Your task to perform on an android device: When is my next meeting? Image 0: 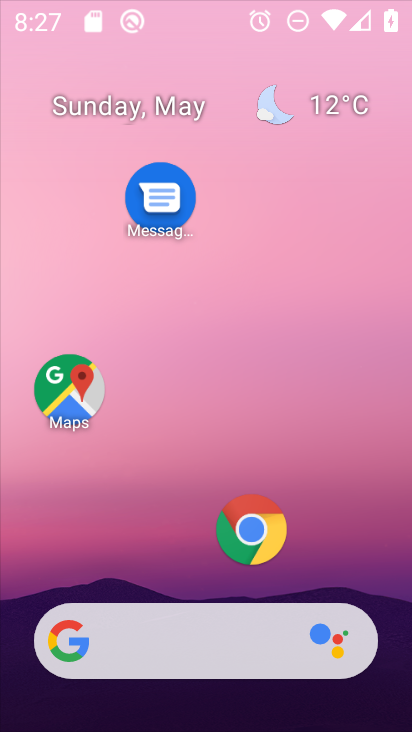
Step 0: click (238, 96)
Your task to perform on an android device: When is my next meeting? Image 1: 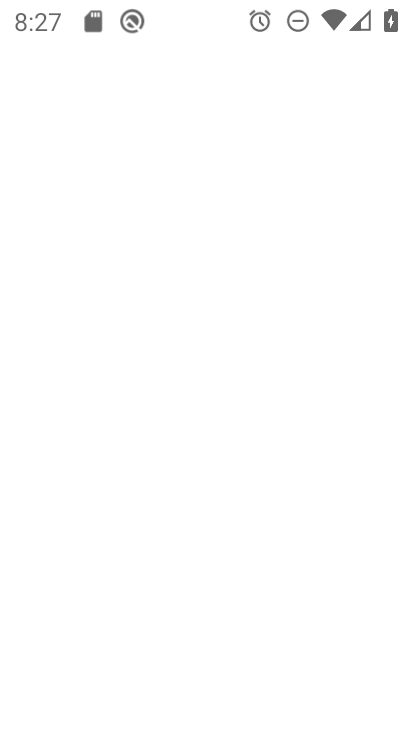
Step 1: press home button
Your task to perform on an android device: When is my next meeting? Image 2: 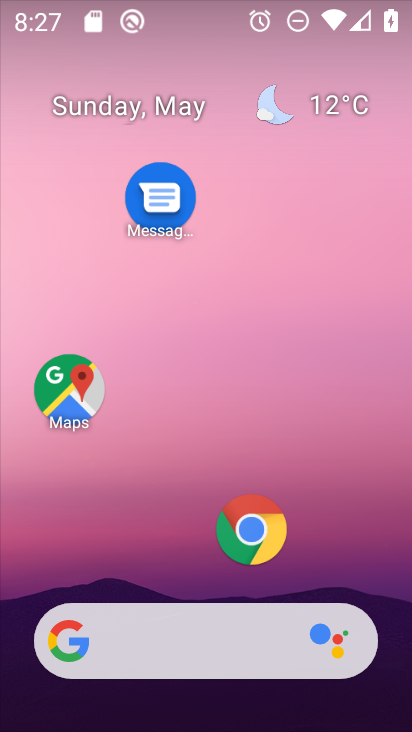
Step 2: drag from (197, 575) to (253, 63)
Your task to perform on an android device: When is my next meeting? Image 3: 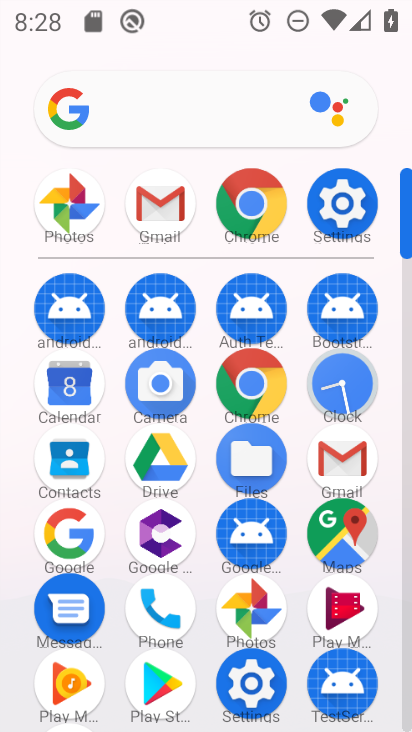
Step 3: click (68, 389)
Your task to perform on an android device: When is my next meeting? Image 4: 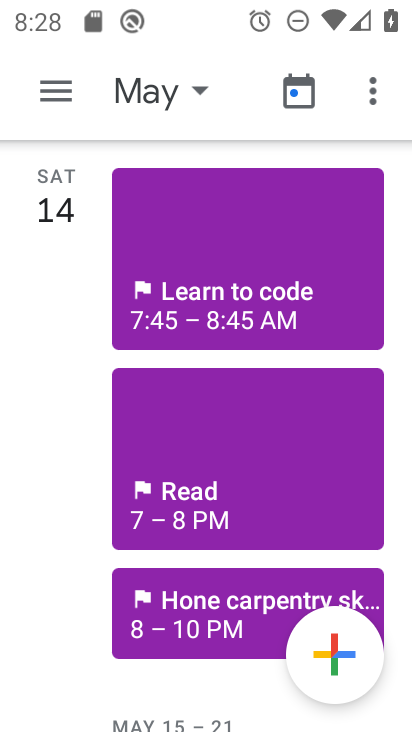
Step 4: click (62, 193)
Your task to perform on an android device: When is my next meeting? Image 5: 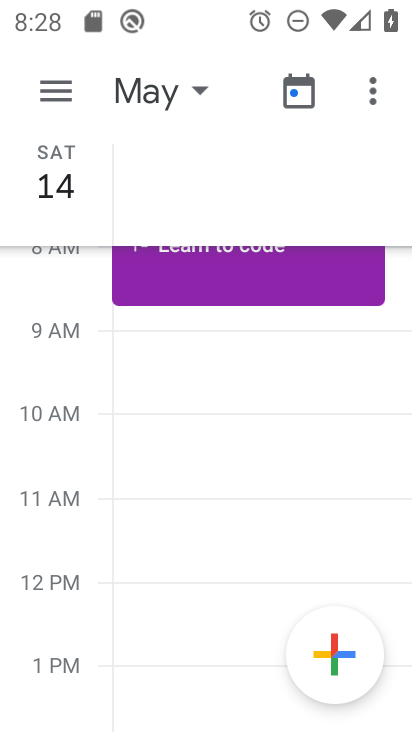
Step 5: click (68, 181)
Your task to perform on an android device: When is my next meeting? Image 6: 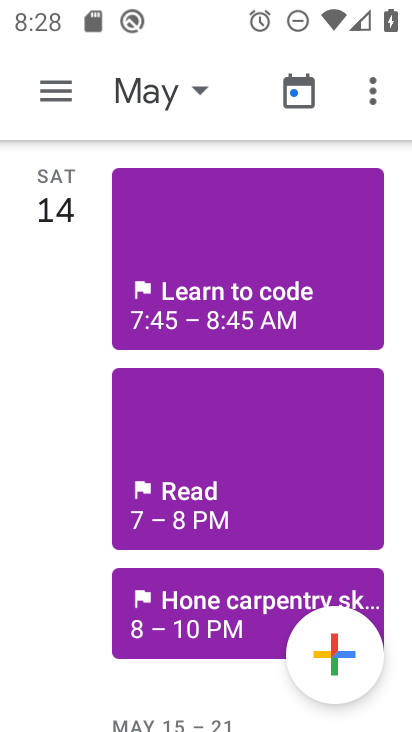
Step 6: click (188, 91)
Your task to perform on an android device: When is my next meeting? Image 7: 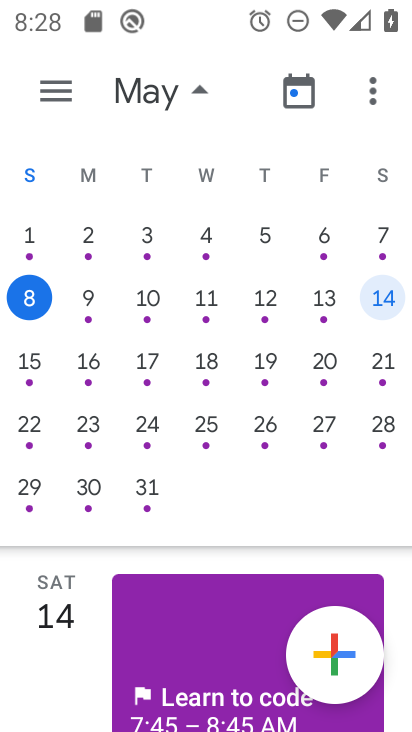
Step 7: click (33, 306)
Your task to perform on an android device: When is my next meeting? Image 8: 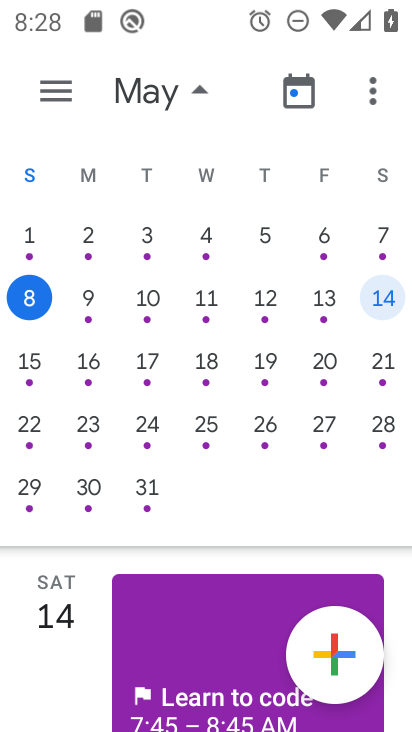
Step 8: click (24, 303)
Your task to perform on an android device: When is my next meeting? Image 9: 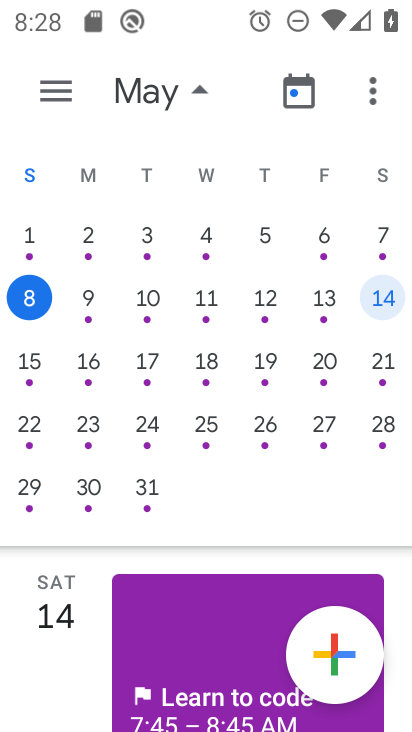
Step 9: click (33, 303)
Your task to perform on an android device: When is my next meeting? Image 10: 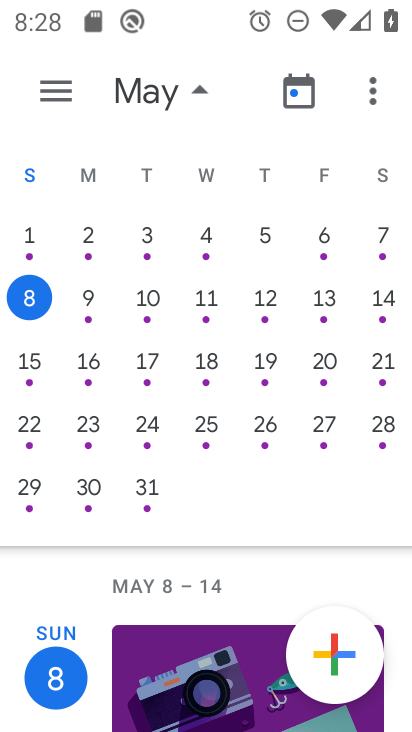
Step 10: click (64, 82)
Your task to perform on an android device: When is my next meeting? Image 11: 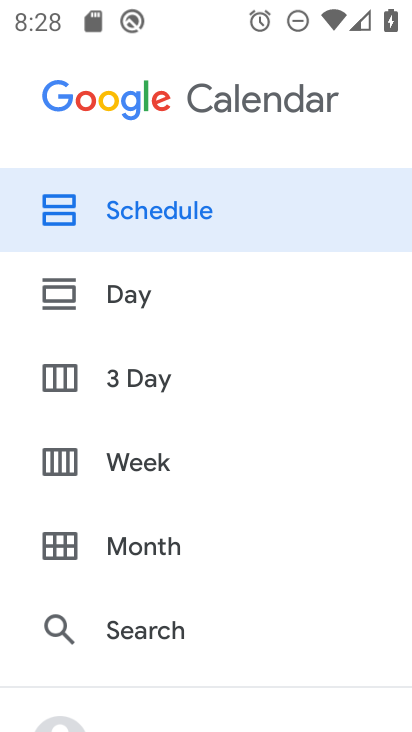
Step 11: click (100, 294)
Your task to perform on an android device: When is my next meeting? Image 12: 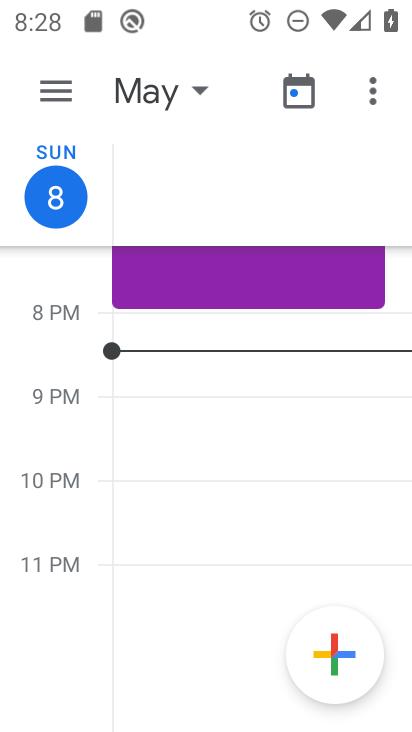
Step 12: click (96, 226)
Your task to perform on an android device: When is my next meeting? Image 13: 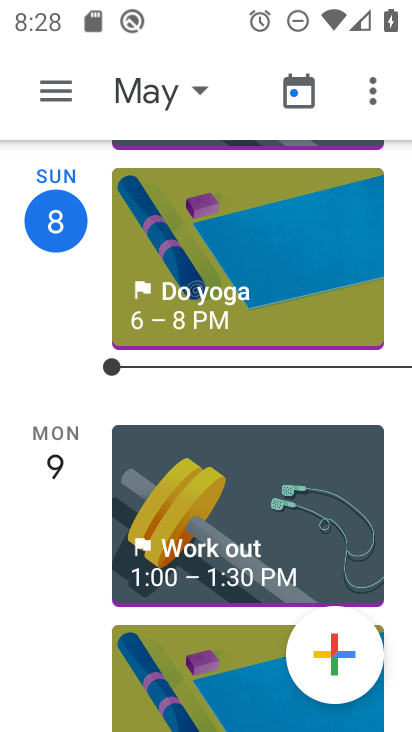
Step 13: task complete